Your task to perform on an android device: Open Wikipedia Image 0: 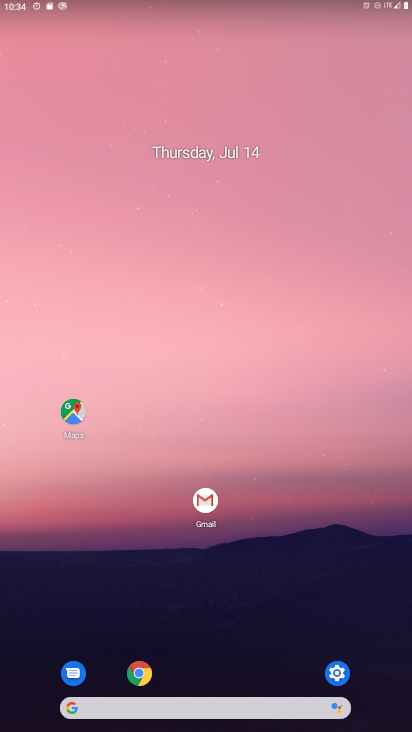
Step 0: click (334, 678)
Your task to perform on an android device: Open Wikipedia Image 1: 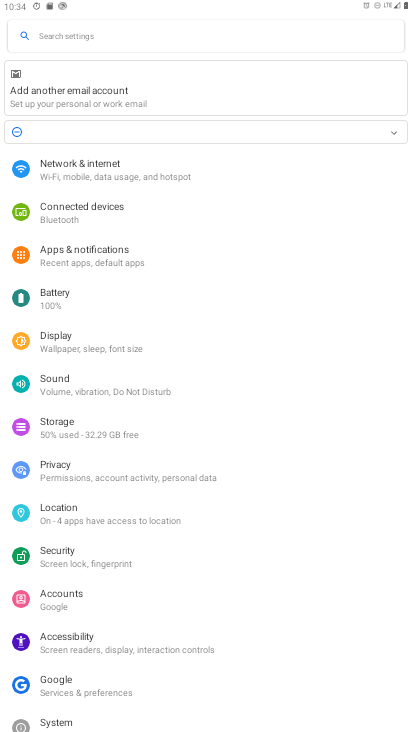
Step 1: press home button
Your task to perform on an android device: Open Wikipedia Image 2: 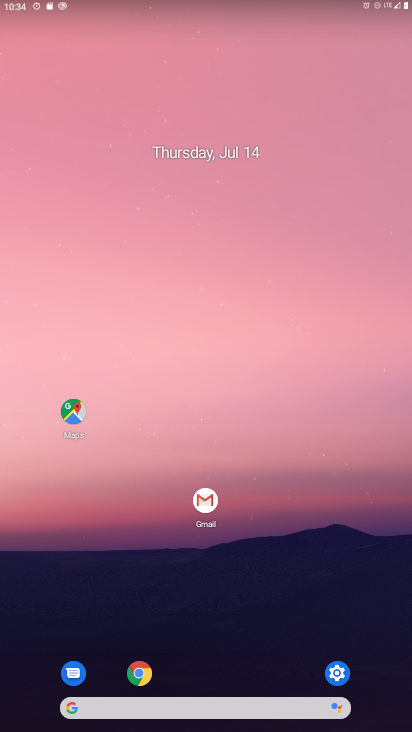
Step 2: click (135, 667)
Your task to perform on an android device: Open Wikipedia Image 3: 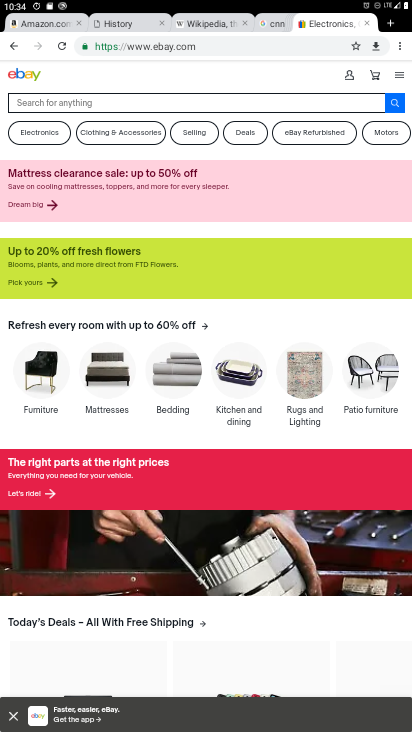
Step 3: click (391, 25)
Your task to perform on an android device: Open Wikipedia Image 4: 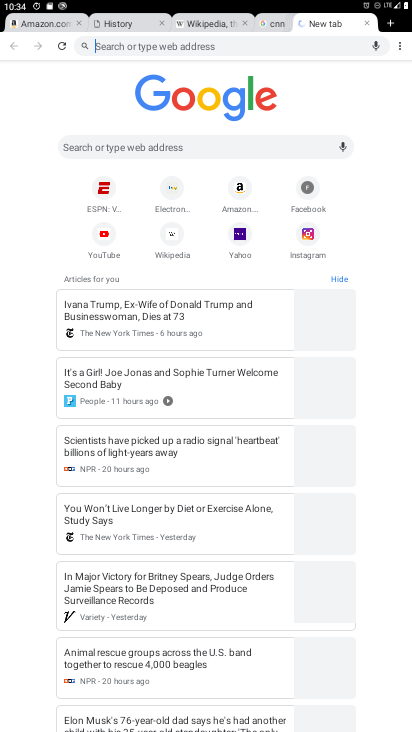
Step 4: click (391, 25)
Your task to perform on an android device: Open Wikipedia Image 5: 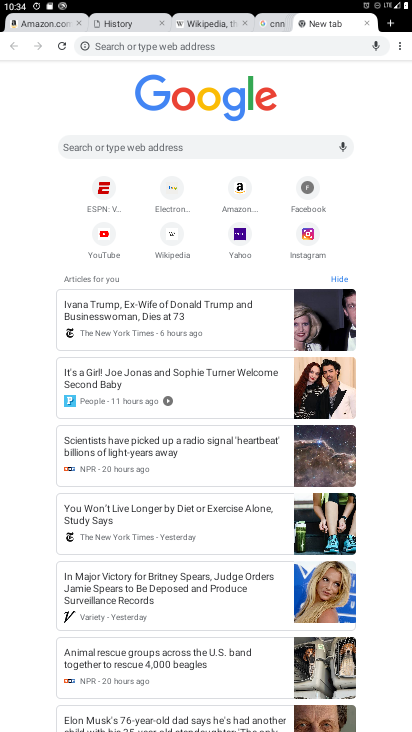
Step 5: click (163, 233)
Your task to perform on an android device: Open Wikipedia Image 6: 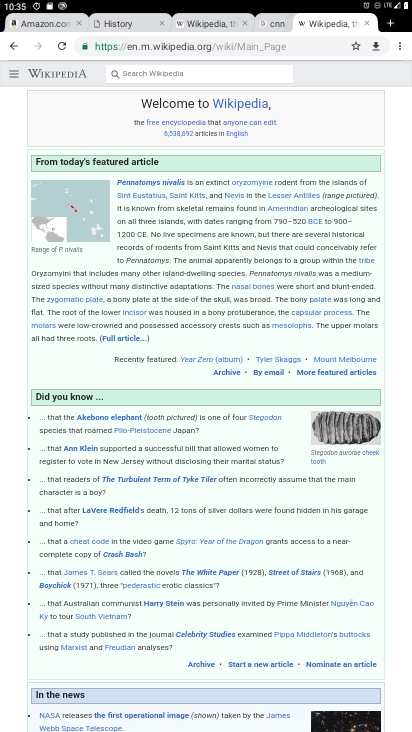
Step 6: task complete